Your task to perform on an android device: turn notification dots off Image 0: 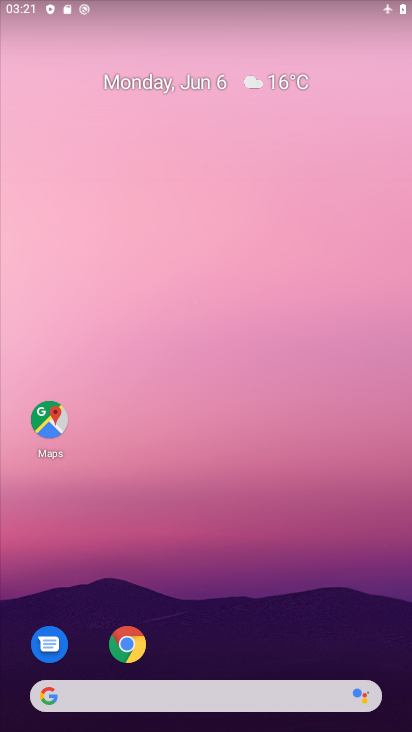
Step 0: drag from (215, 654) to (273, 194)
Your task to perform on an android device: turn notification dots off Image 1: 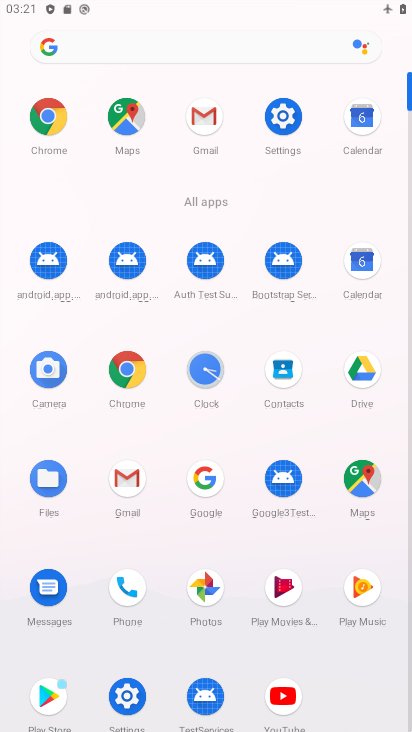
Step 1: click (133, 693)
Your task to perform on an android device: turn notification dots off Image 2: 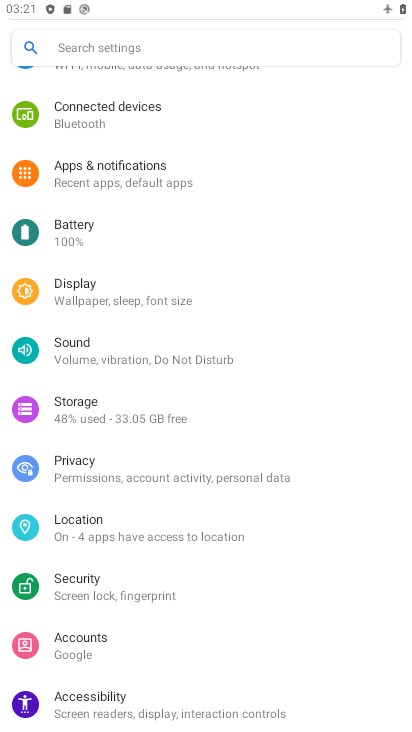
Step 2: click (125, 173)
Your task to perform on an android device: turn notification dots off Image 3: 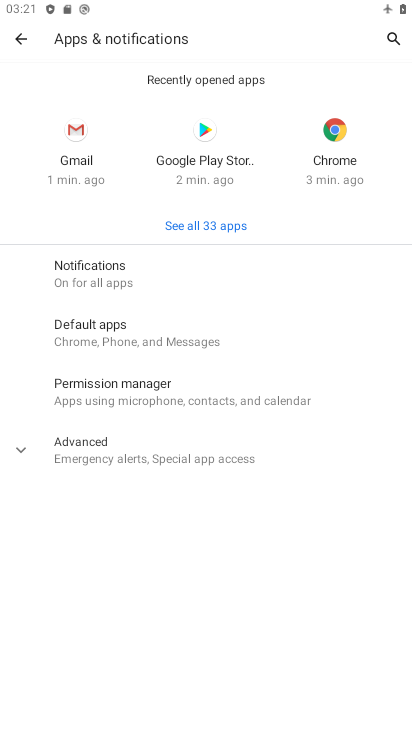
Step 3: click (108, 281)
Your task to perform on an android device: turn notification dots off Image 4: 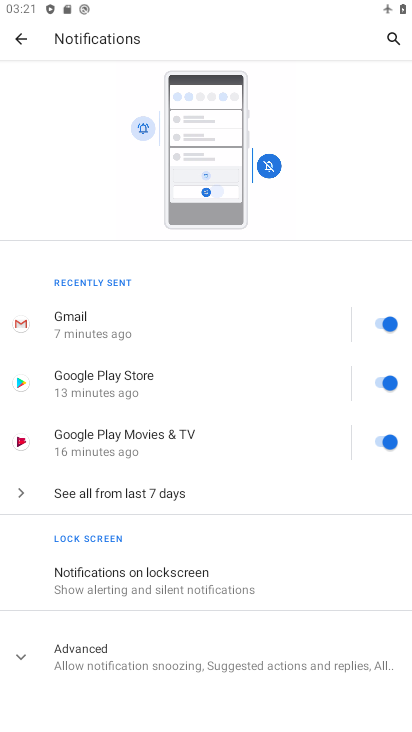
Step 4: click (162, 649)
Your task to perform on an android device: turn notification dots off Image 5: 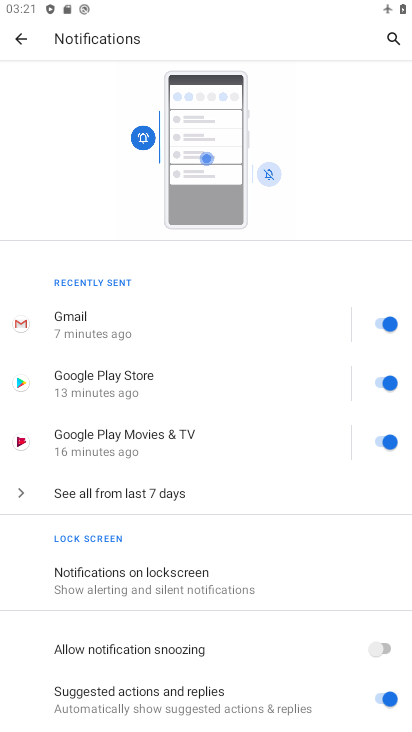
Step 5: drag from (177, 604) to (243, 222)
Your task to perform on an android device: turn notification dots off Image 6: 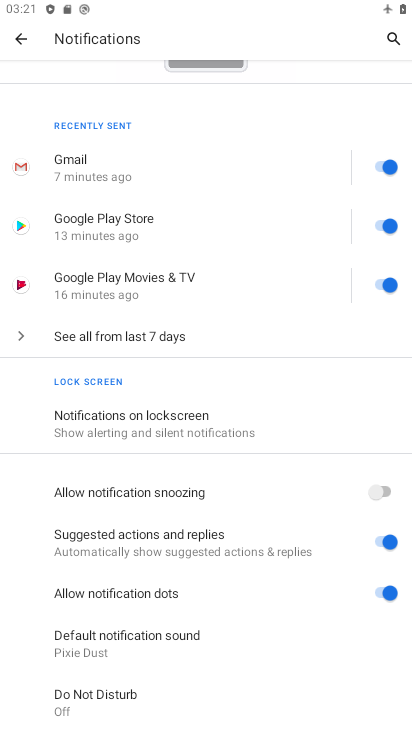
Step 6: click (362, 593)
Your task to perform on an android device: turn notification dots off Image 7: 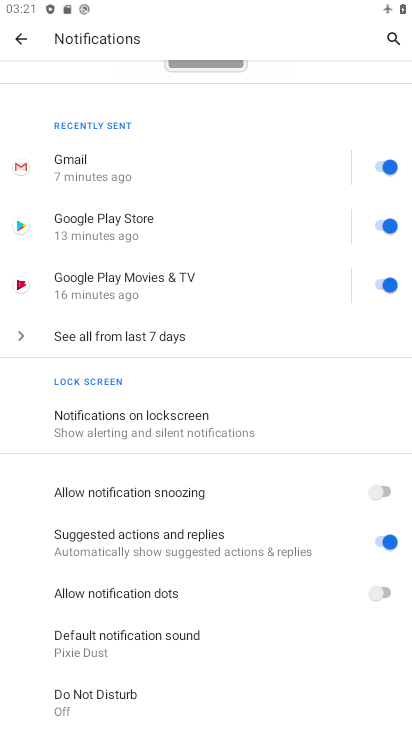
Step 7: task complete